Your task to perform on an android device: Open notification settings Image 0: 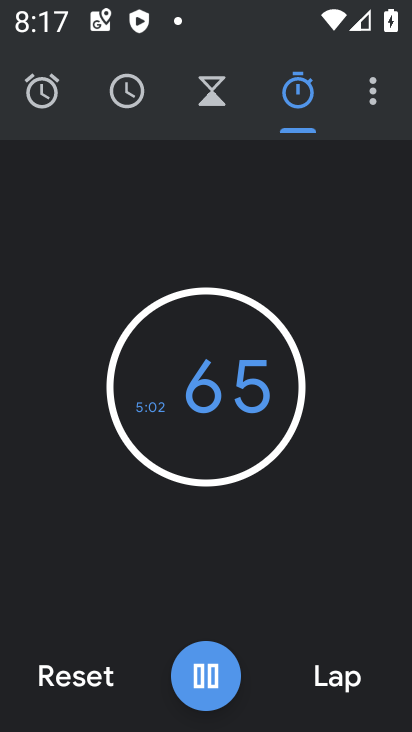
Step 0: press home button
Your task to perform on an android device: Open notification settings Image 1: 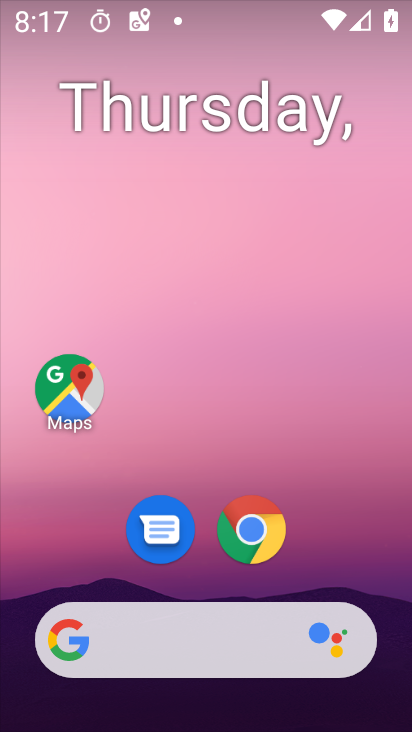
Step 1: drag from (385, 709) to (372, 236)
Your task to perform on an android device: Open notification settings Image 2: 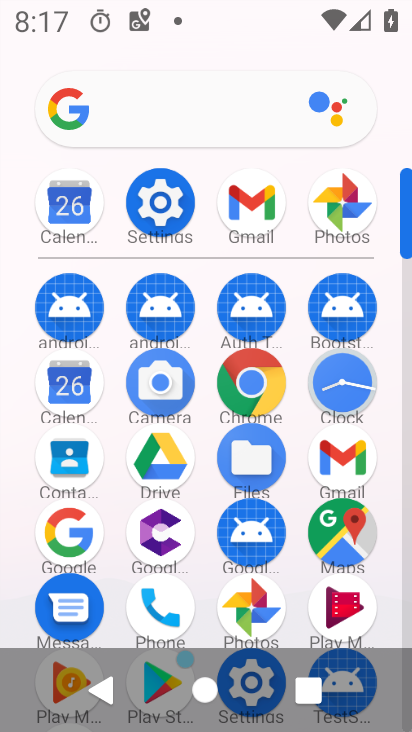
Step 2: click (162, 211)
Your task to perform on an android device: Open notification settings Image 3: 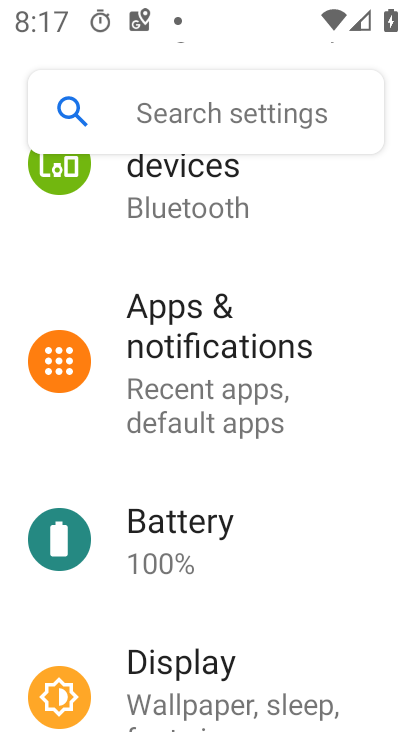
Step 3: click (197, 336)
Your task to perform on an android device: Open notification settings Image 4: 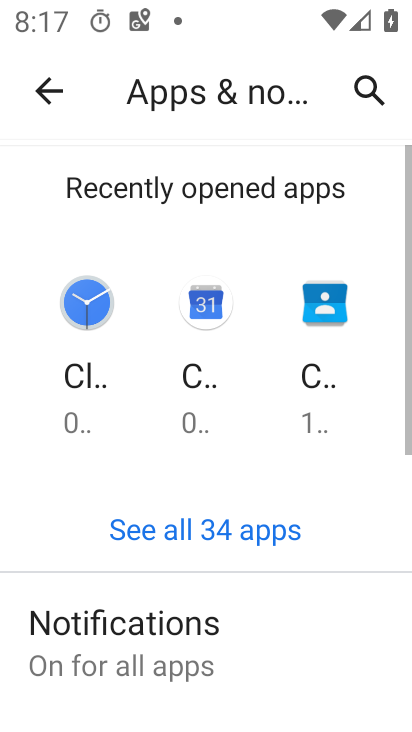
Step 4: click (104, 633)
Your task to perform on an android device: Open notification settings Image 5: 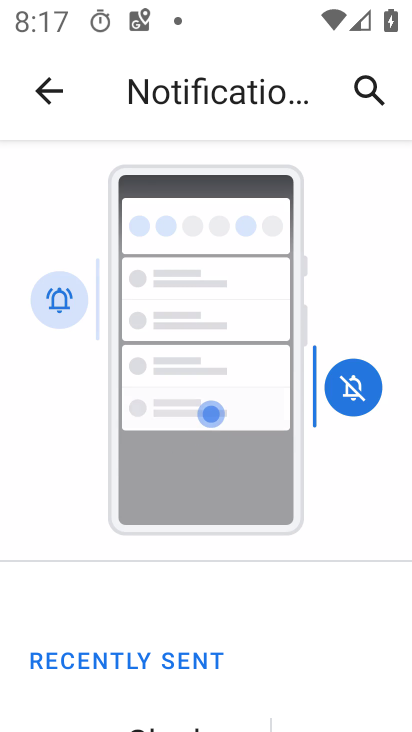
Step 5: drag from (297, 700) to (292, 8)
Your task to perform on an android device: Open notification settings Image 6: 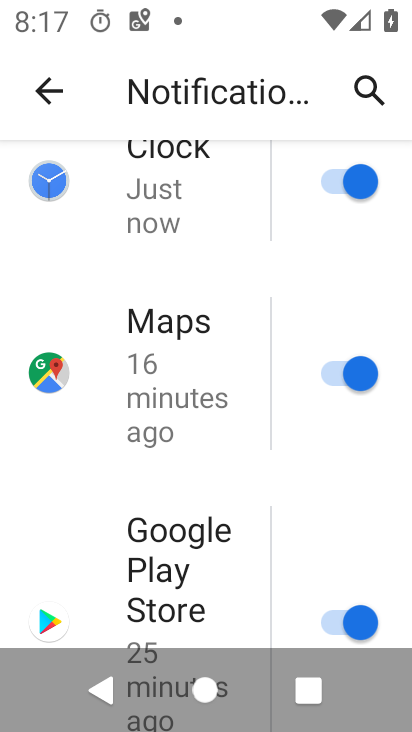
Step 6: drag from (283, 625) to (278, 53)
Your task to perform on an android device: Open notification settings Image 7: 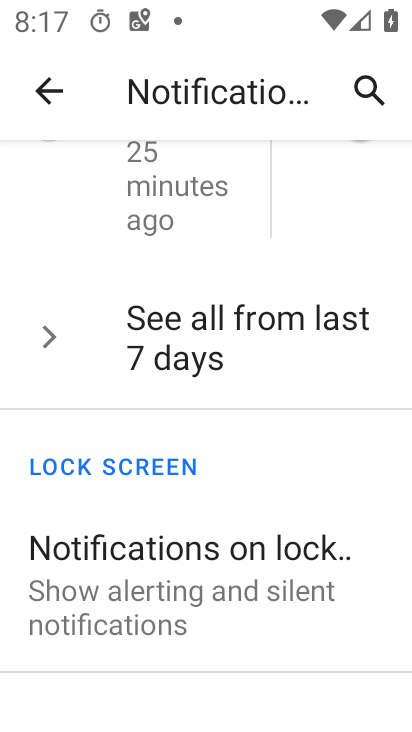
Step 7: drag from (269, 632) to (288, 206)
Your task to perform on an android device: Open notification settings Image 8: 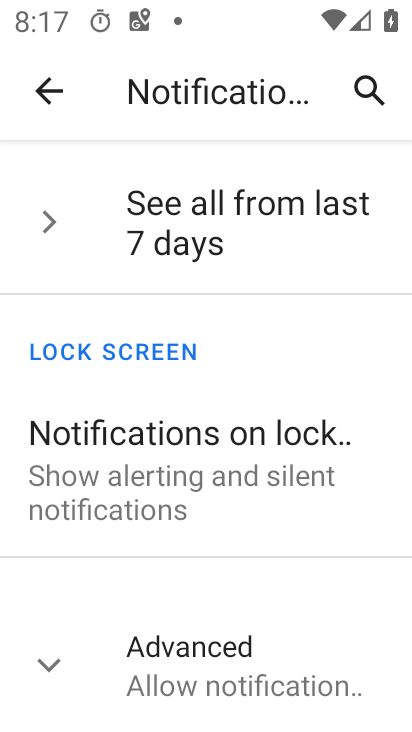
Step 8: click (44, 669)
Your task to perform on an android device: Open notification settings Image 9: 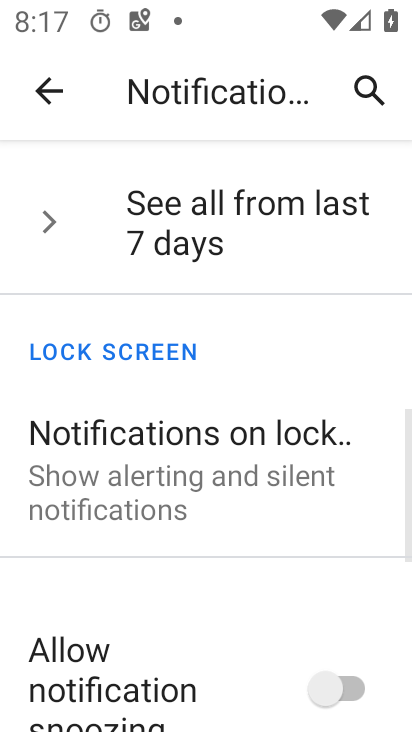
Step 9: task complete